Your task to perform on an android device: change timer sound Image 0: 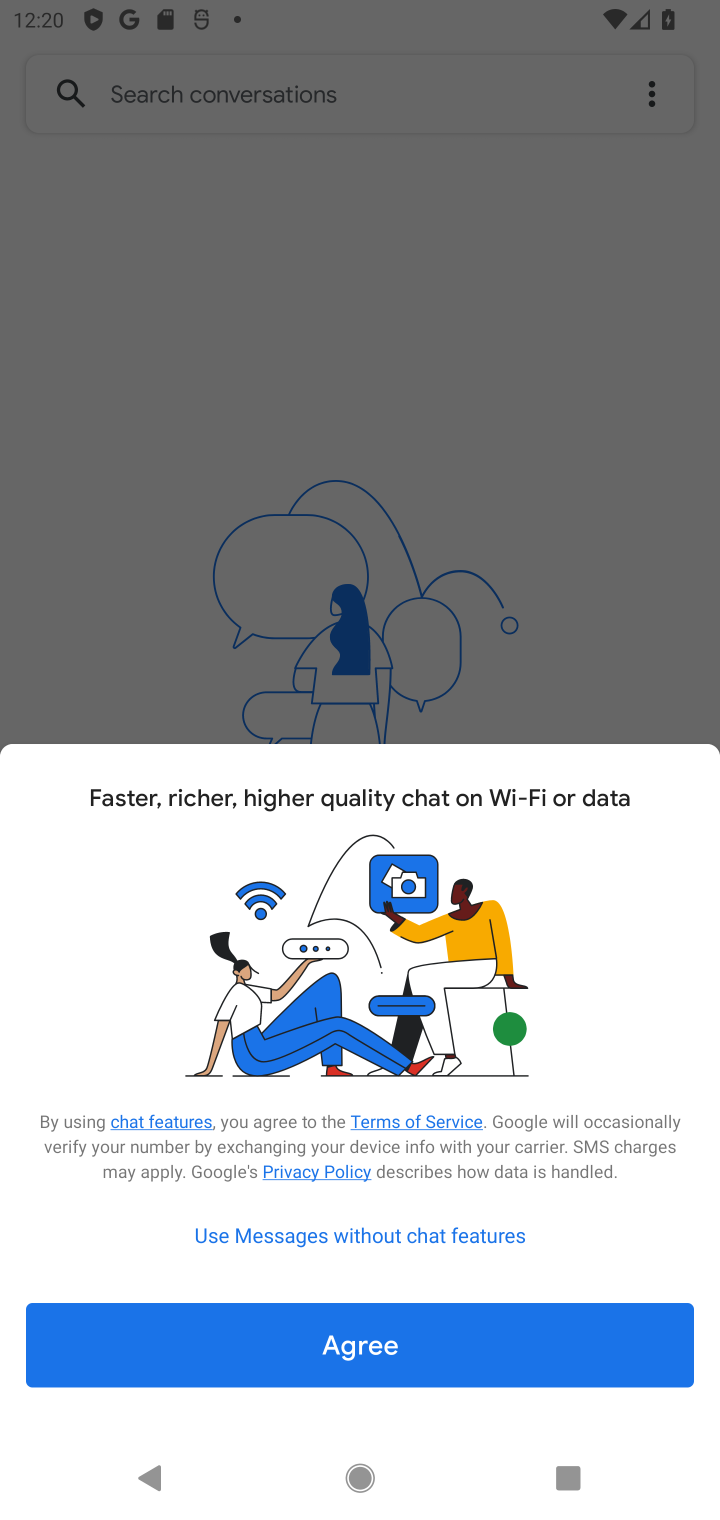
Step 0: press home button
Your task to perform on an android device: change timer sound Image 1: 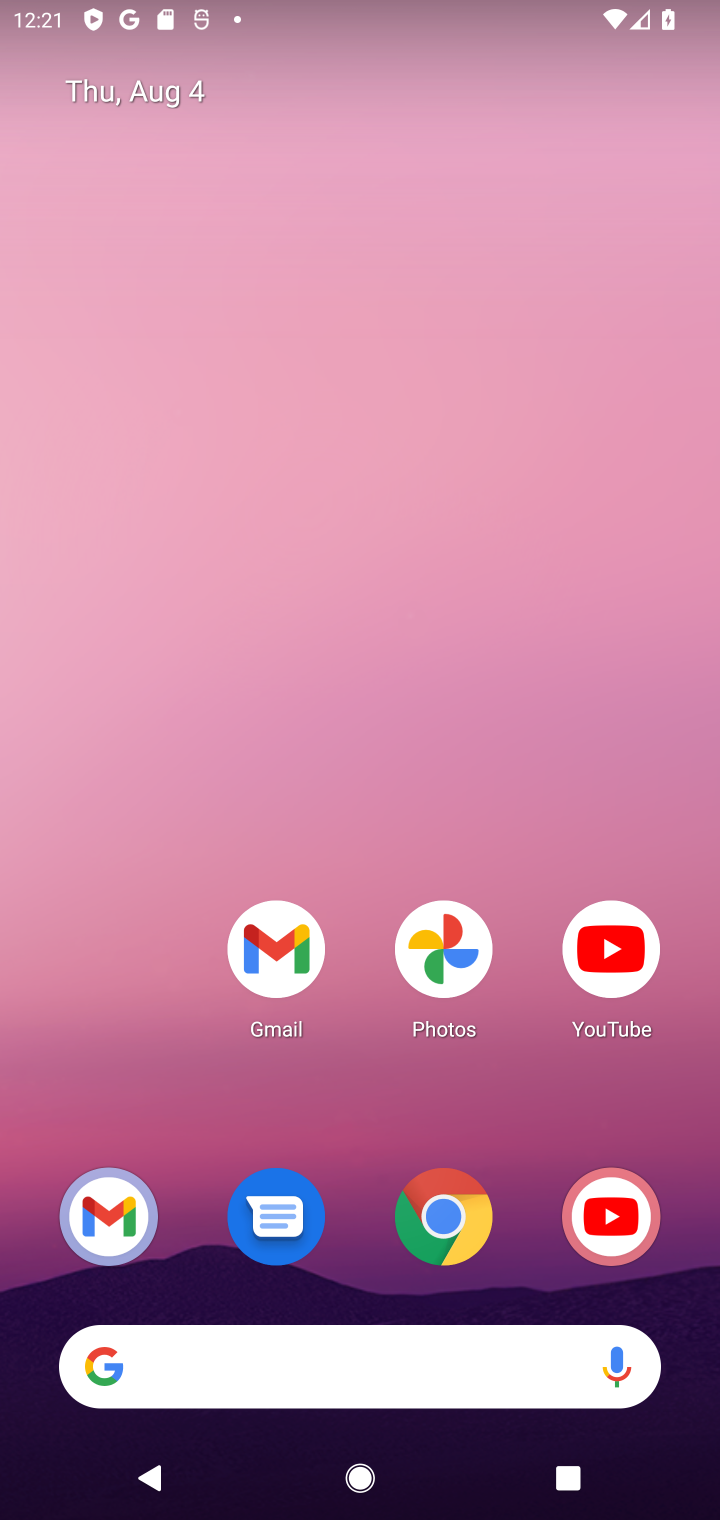
Step 1: drag from (108, 921) to (123, 348)
Your task to perform on an android device: change timer sound Image 2: 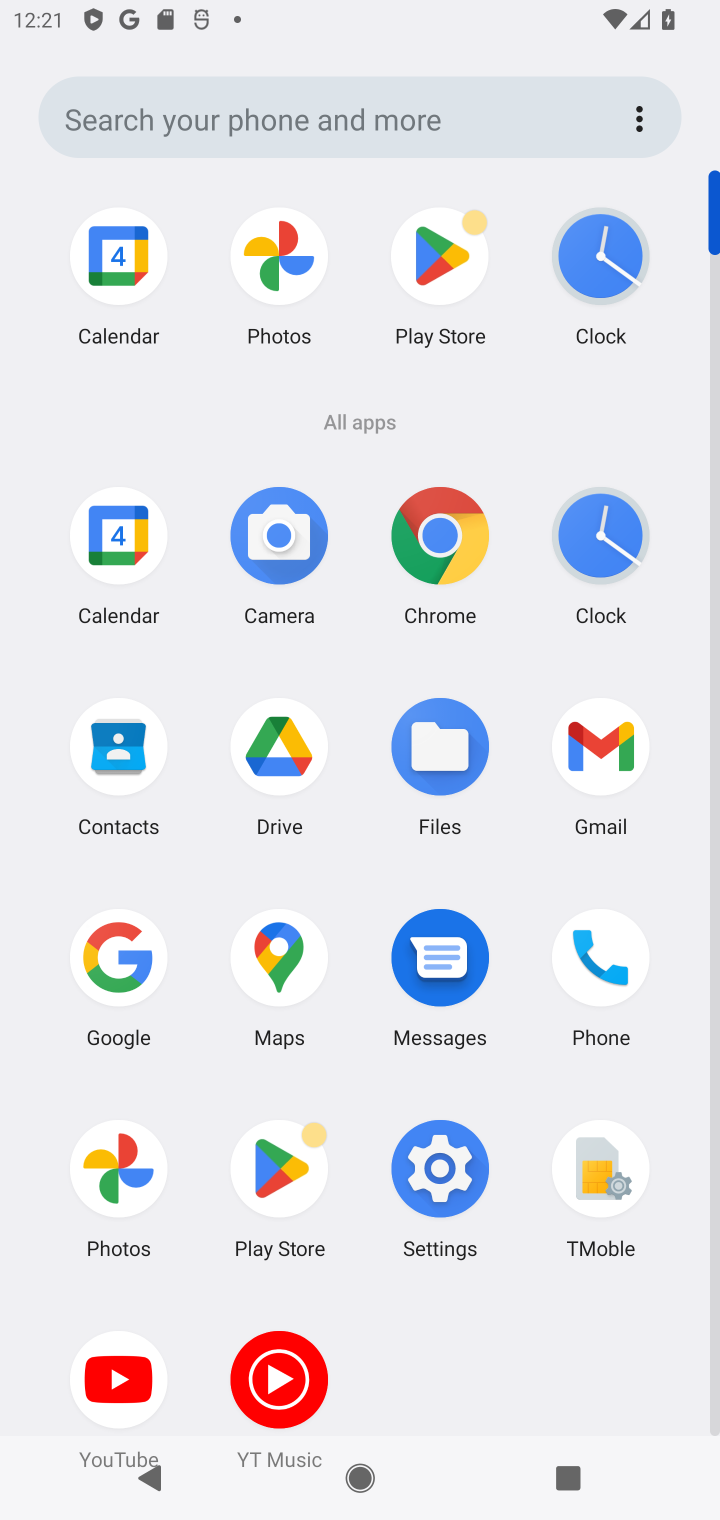
Step 2: click (613, 260)
Your task to perform on an android device: change timer sound Image 3: 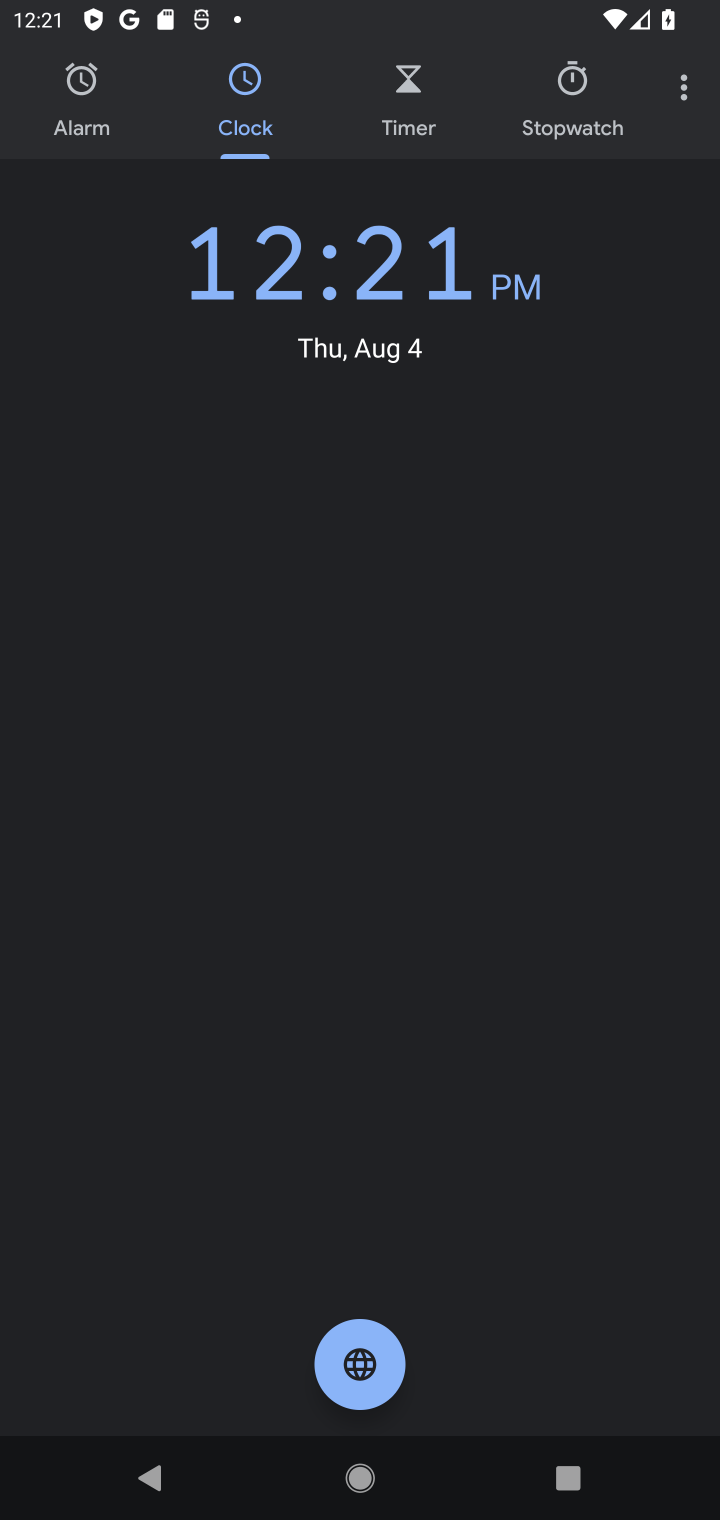
Step 3: click (682, 88)
Your task to perform on an android device: change timer sound Image 4: 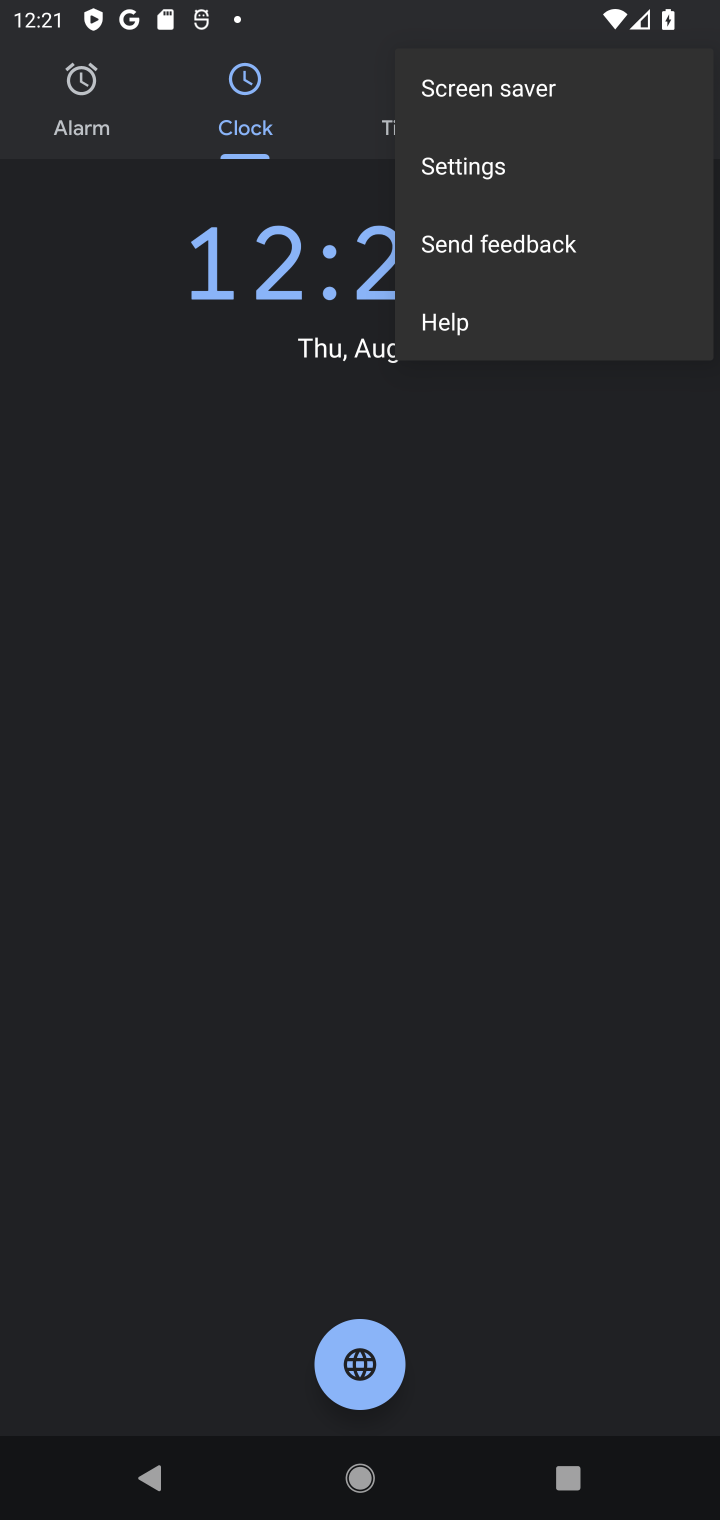
Step 4: click (482, 166)
Your task to perform on an android device: change timer sound Image 5: 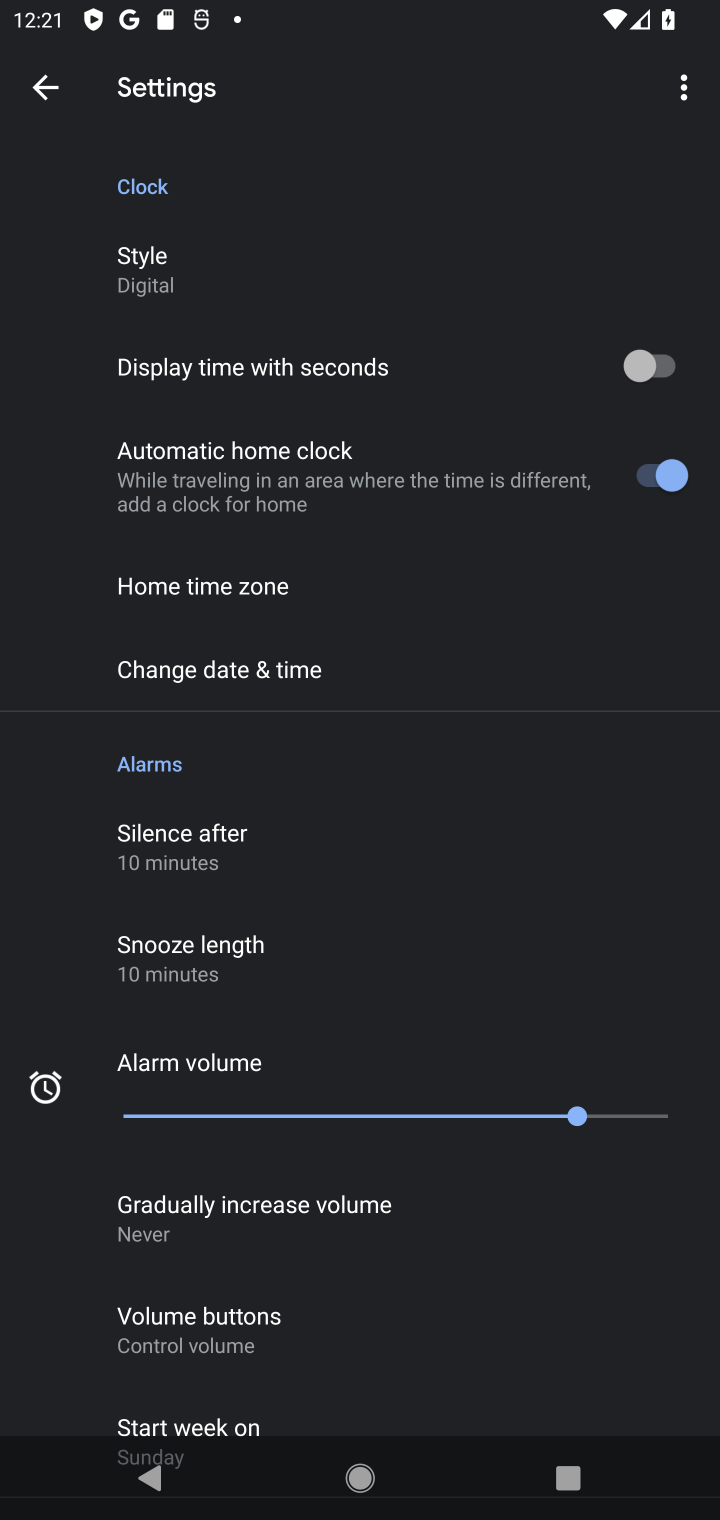
Step 5: drag from (298, 1232) to (281, 597)
Your task to perform on an android device: change timer sound Image 6: 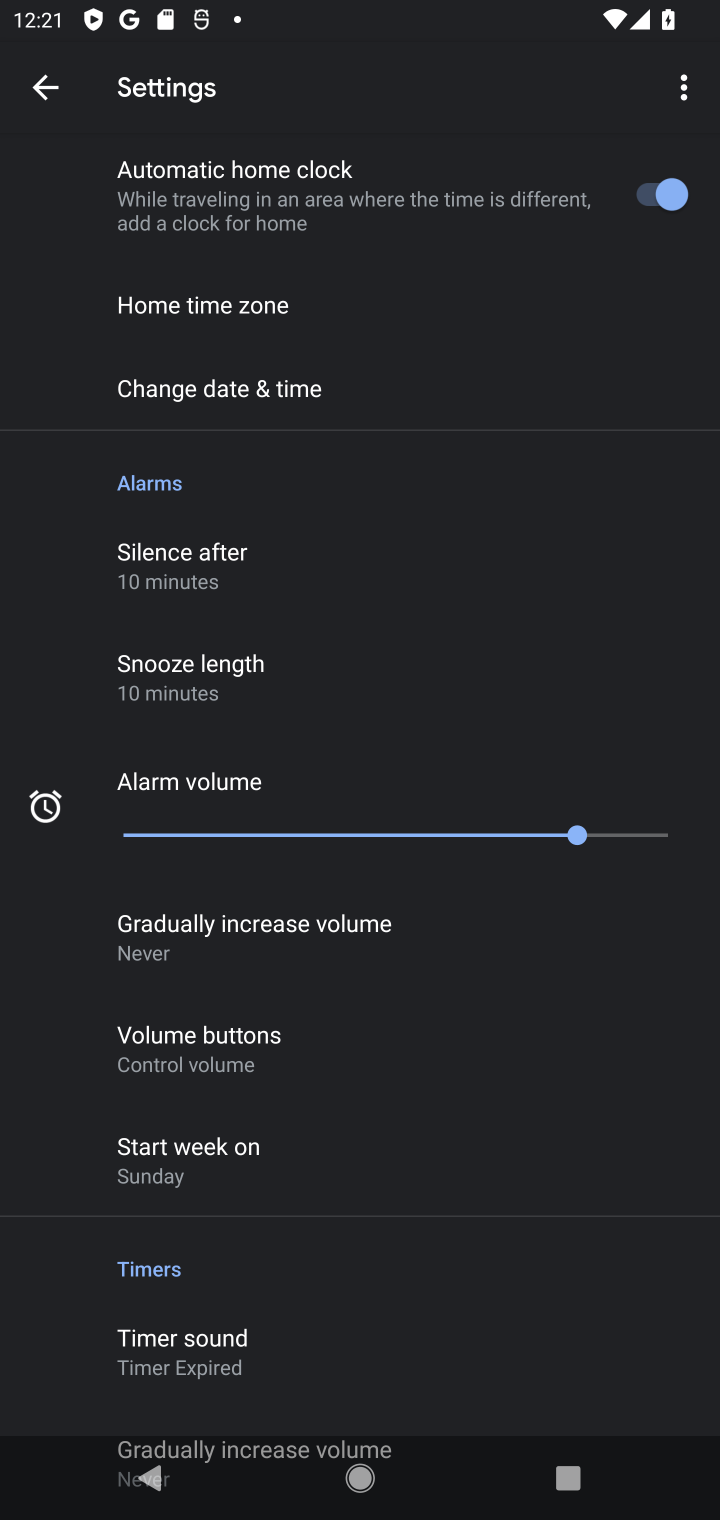
Step 6: click (191, 1342)
Your task to perform on an android device: change timer sound Image 7: 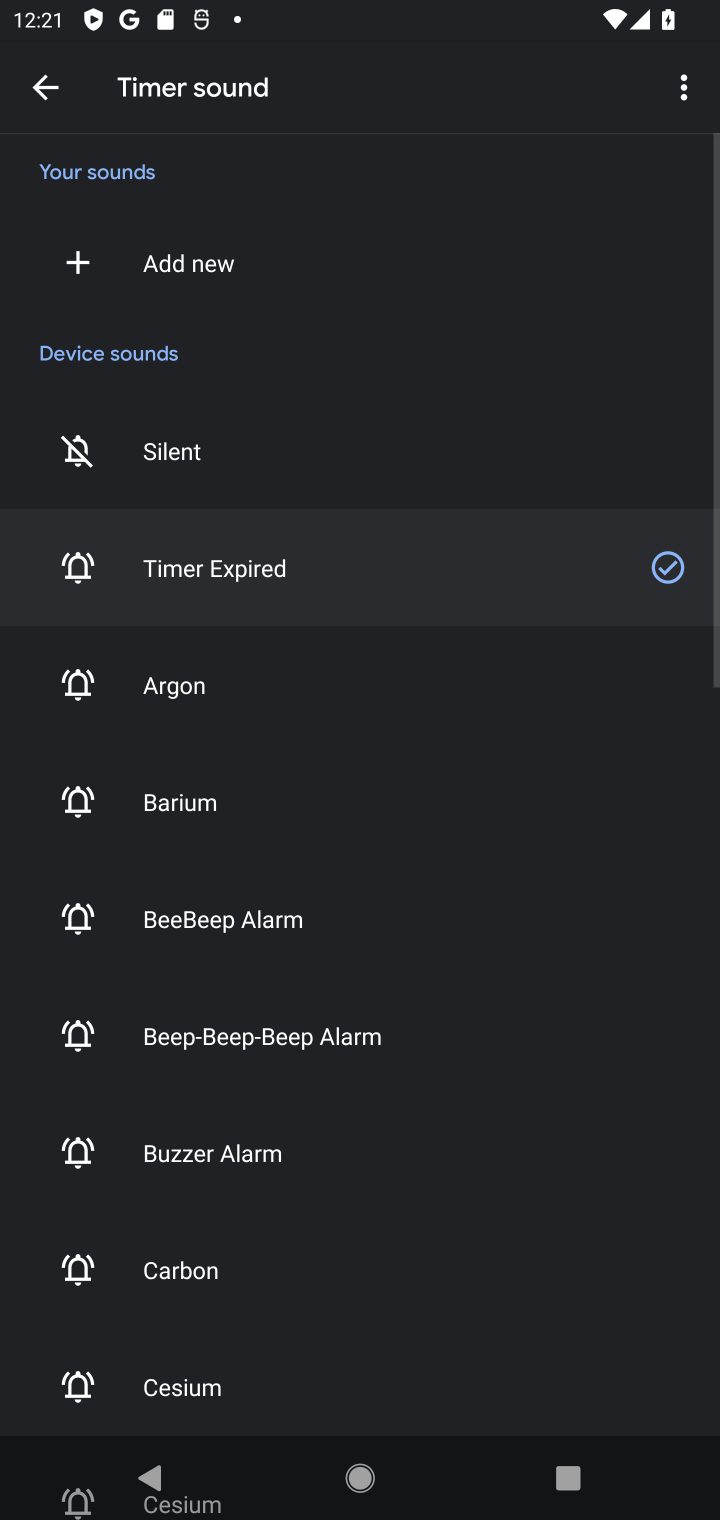
Step 7: click (176, 680)
Your task to perform on an android device: change timer sound Image 8: 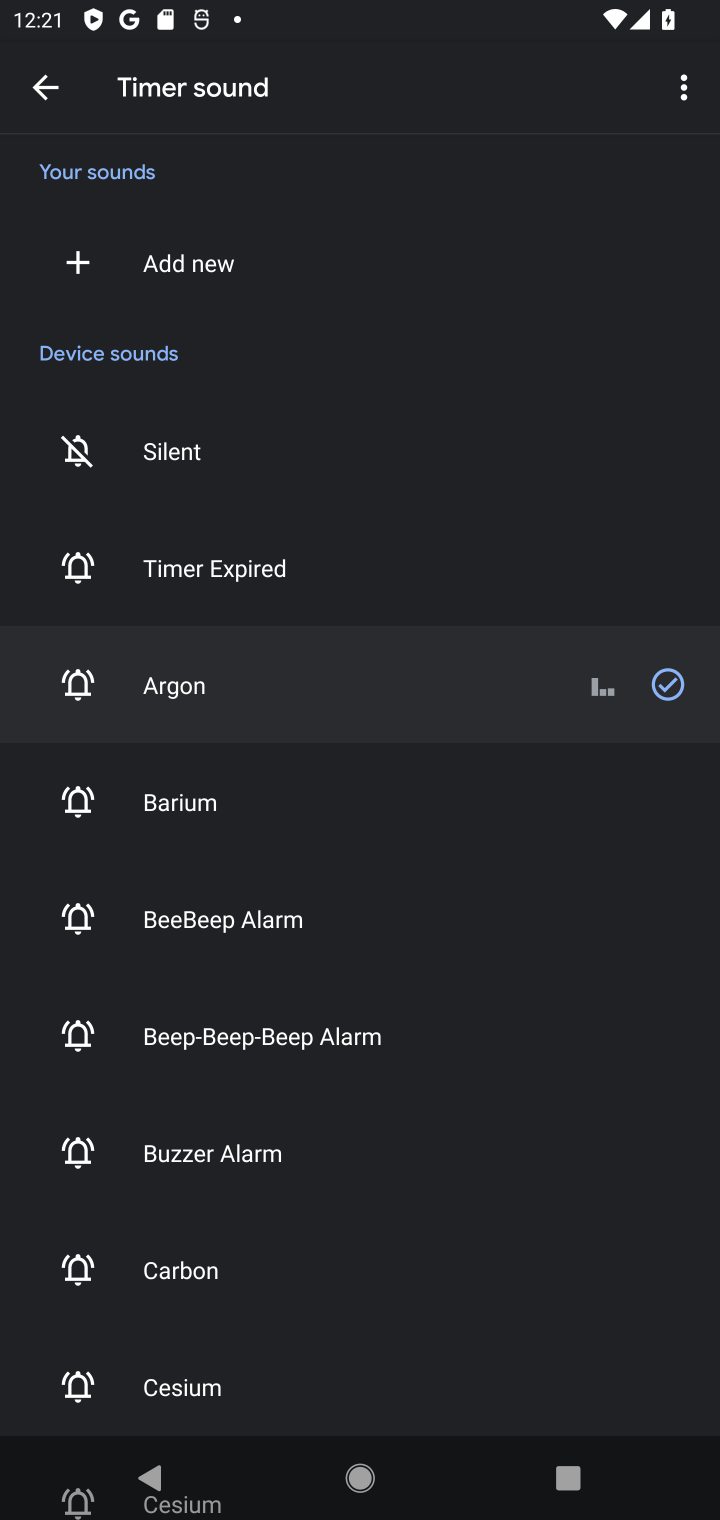
Step 8: task complete